Your task to perform on an android device: set default search engine in the chrome app Image 0: 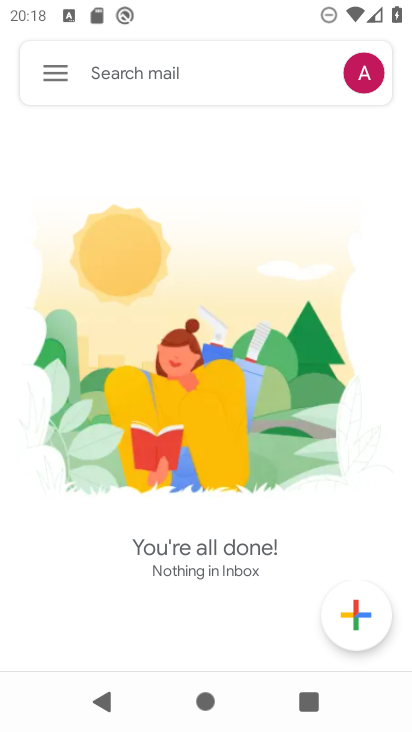
Step 0: press home button
Your task to perform on an android device: set default search engine in the chrome app Image 1: 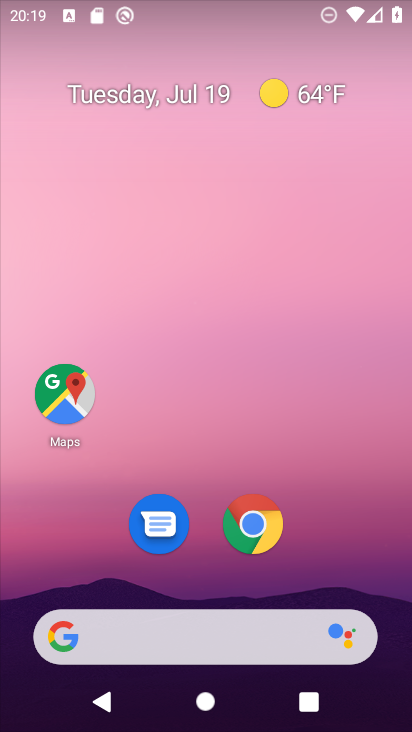
Step 1: click (257, 523)
Your task to perform on an android device: set default search engine in the chrome app Image 2: 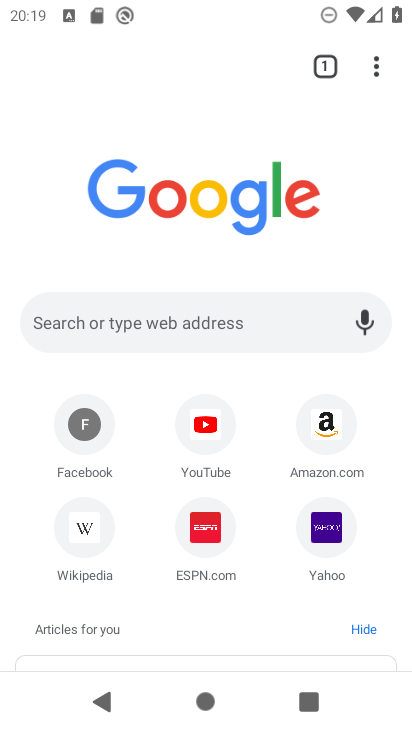
Step 2: click (370, 71)
Your task to perform on an android device: set default search engine in the chrome app Image 3: 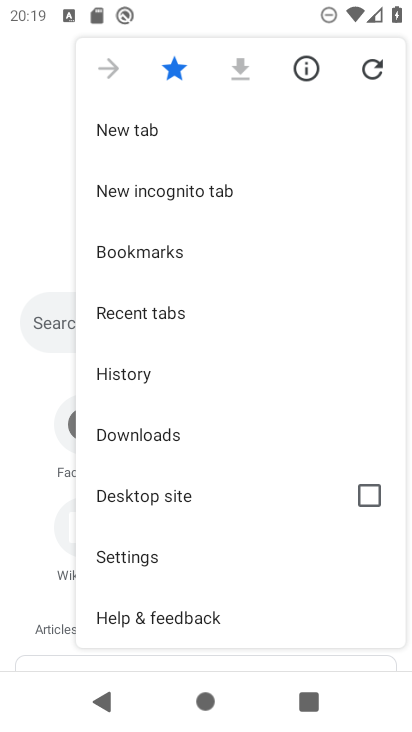
Step 3: click (145, 555)
Your task to perform on an android device: set default search engine in the chrome app Image 4: 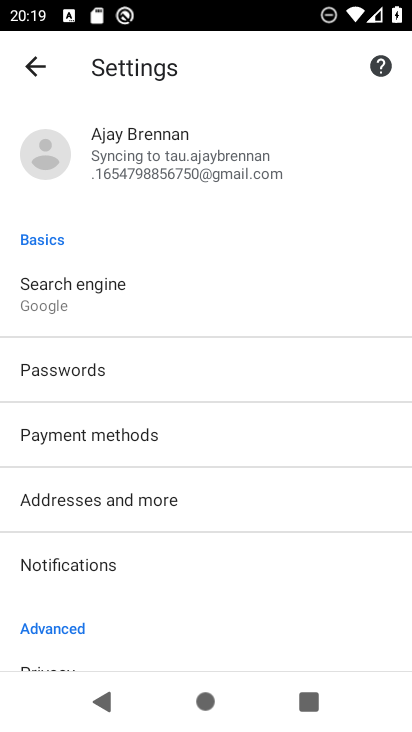
Step 4: click (108, 294)
Your task to perform on an android device: set default search engine in the chrome app Image 5: 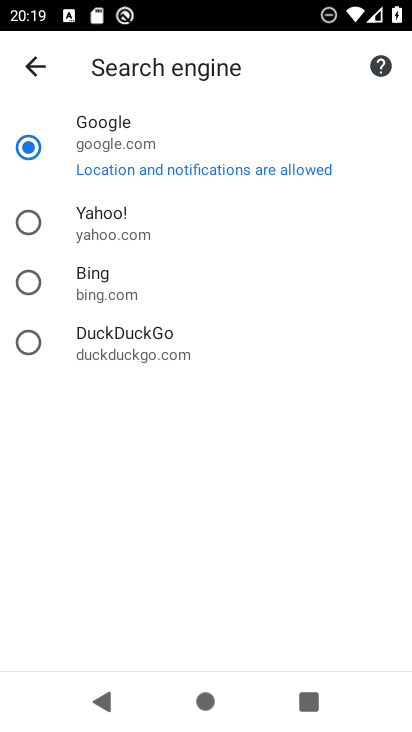
Step 5: task complete